Your task to perform on an android device: What's the weather today? Image 0: 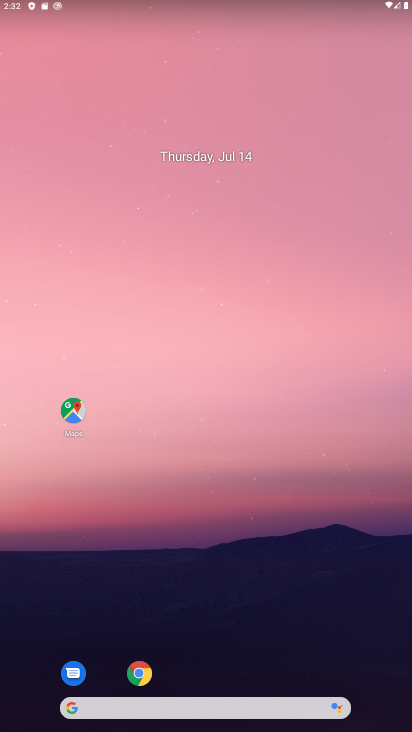
Step 0: drag from (205, 511) to (235, 76)
Your task to perform on an android device: What's the weather today? Image 1: 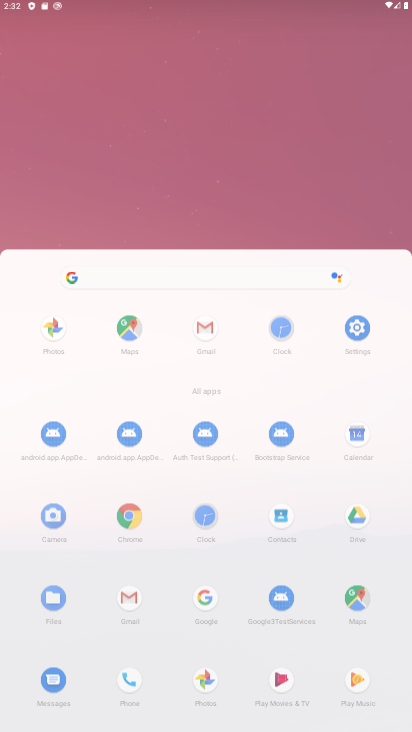
Step 1: drag from (176, 542) to (142, 93)
Your task to perform on an android device: What's the weather today? Image 2: 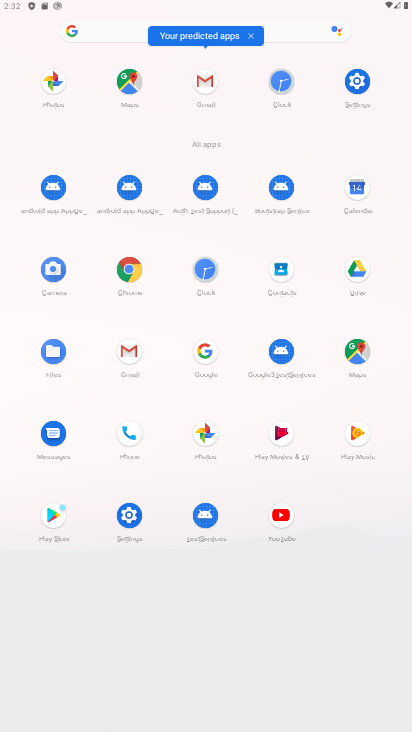
Step 2: click (143, 265)
Your task to perform on an android device: What's the weather today? Image 3: 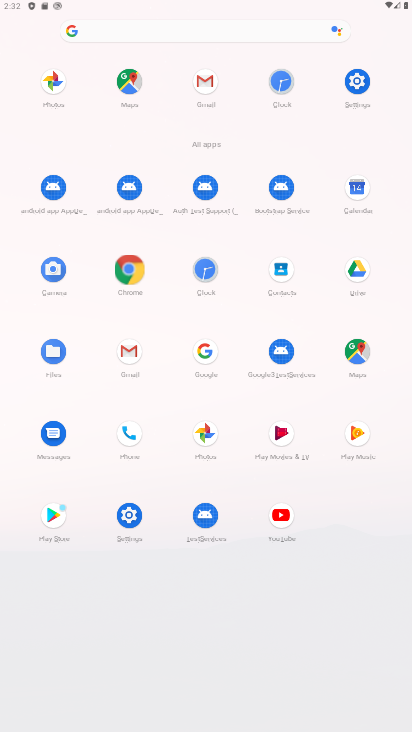
Step 3: click (126, 276)
Your task to perform on an android device: What's the weather today? Image 4: 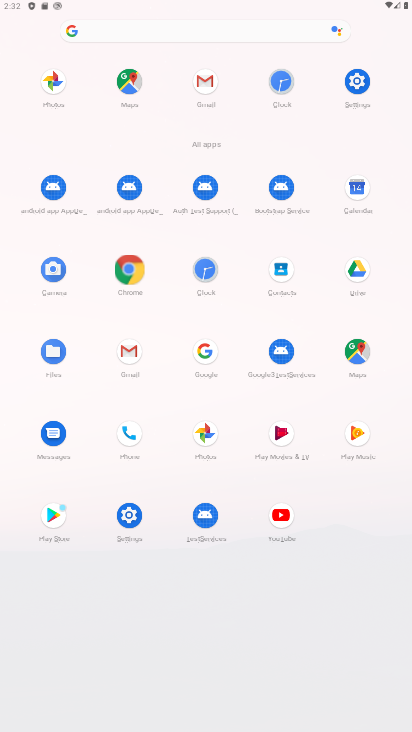
Step 4: click (126, 276)
Your task to perform on an android device: What's the weather today? Image 5: 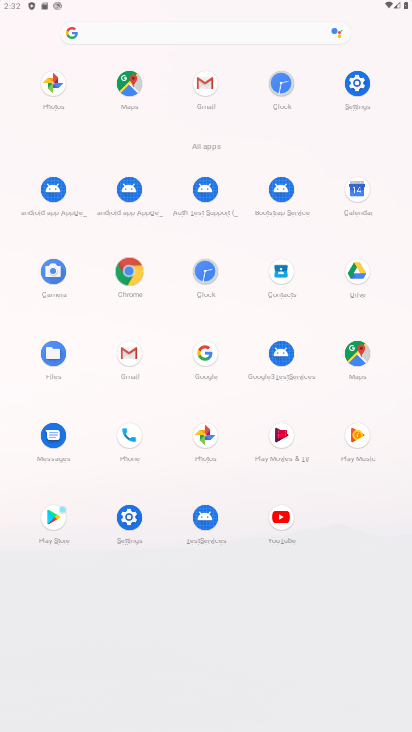
Step 5: click (131, 283)
Your task to perform on an android device: What's the weather today? Image 6: 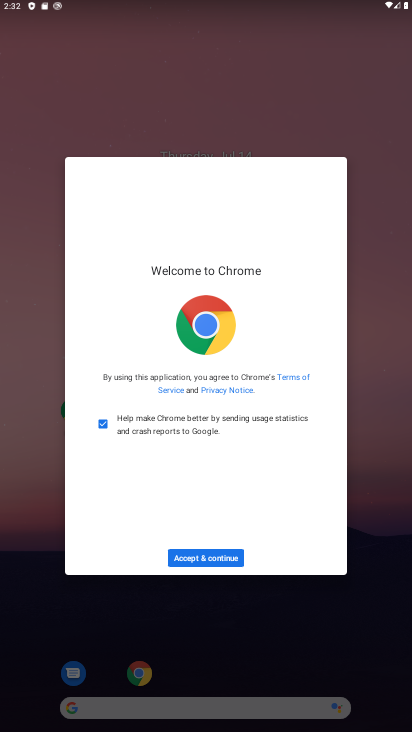
Step 6: click (219, 557)
Your task to perform on an android device: What's the weather today? Image 7: 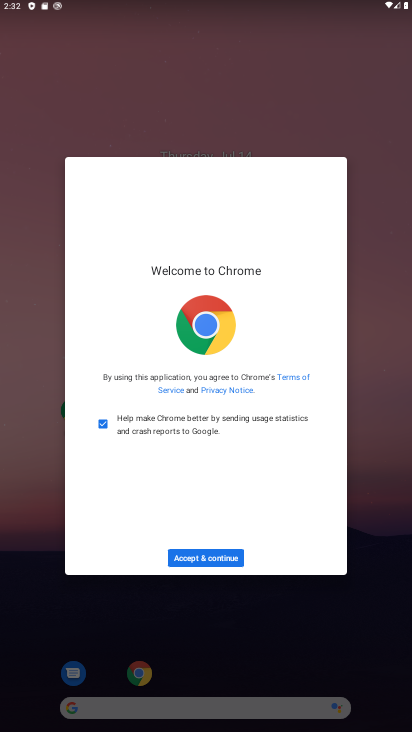
Step 7: click (219, 557)
Your task to perform on an android device: What's the weather today? Image 8: 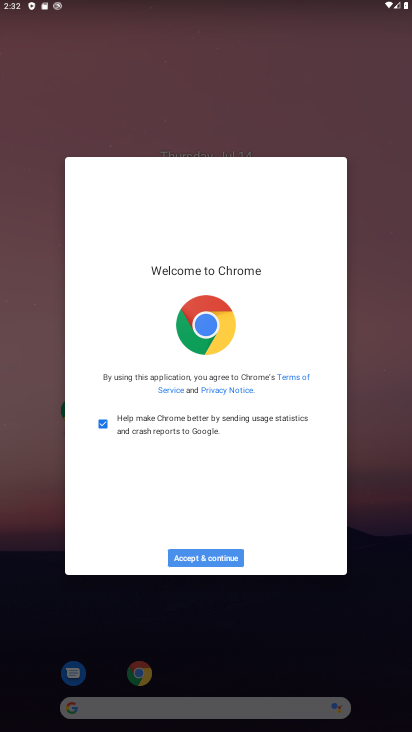
Step 8: click (219, 556)
Your task to perform on an android device: What's the weather today? Image 9: 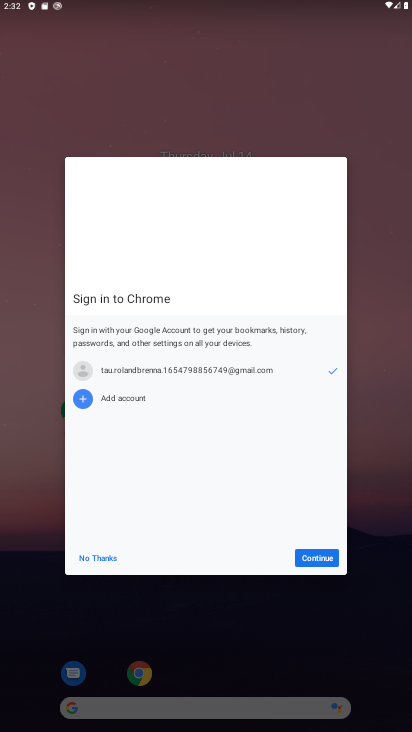
Step 9: click (219, 556)
Your task to perform on an android device: What's the weather today? Image 10: 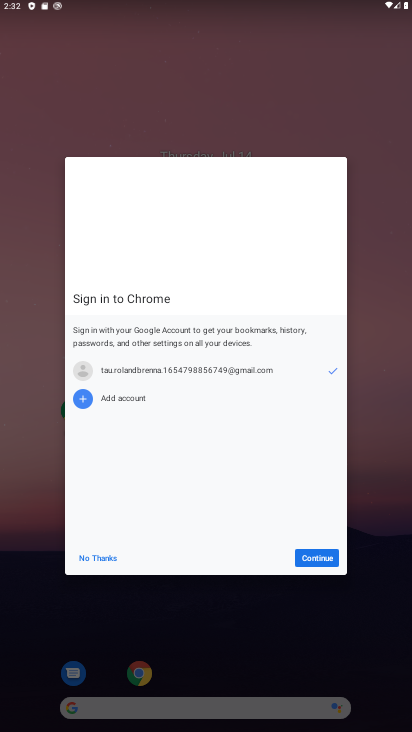
Step 10: click (326, 569)
Your task to perform on an android device: What's the weather today? Image 11: 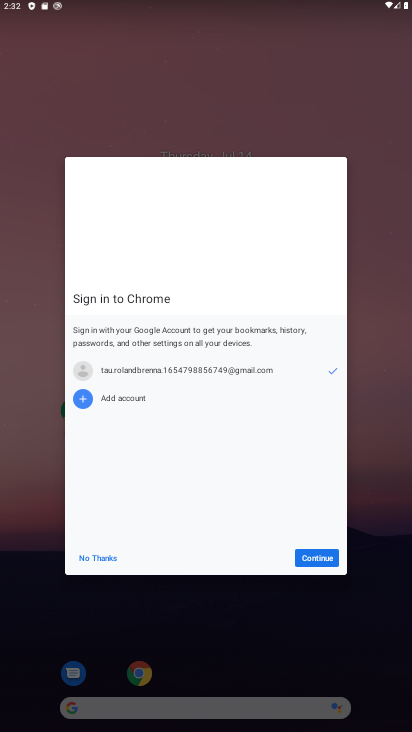
Step 11: click (327, 568)
Your task to perform on an android device: What's the weather today? Image 12: 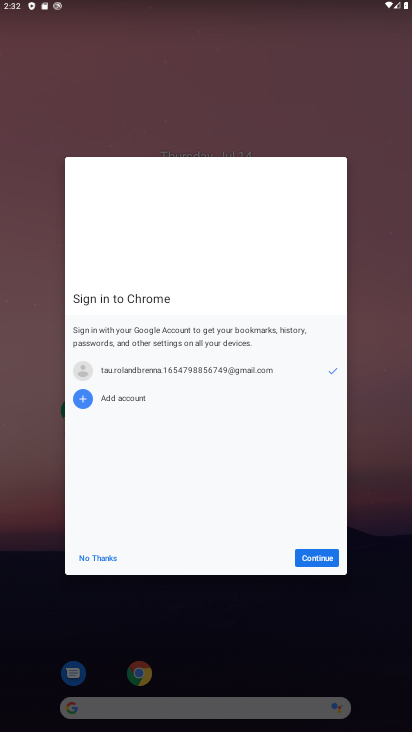
Step 12: click (324, 558)
Your task to perform on an android device: What's the weather today? Image 13: 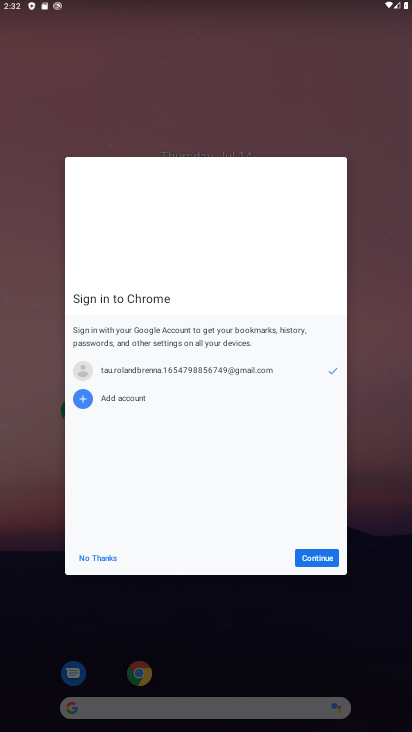
Step 13: click (324, 558)
Your task to perform on an android device: What's the weather today? Image 14: 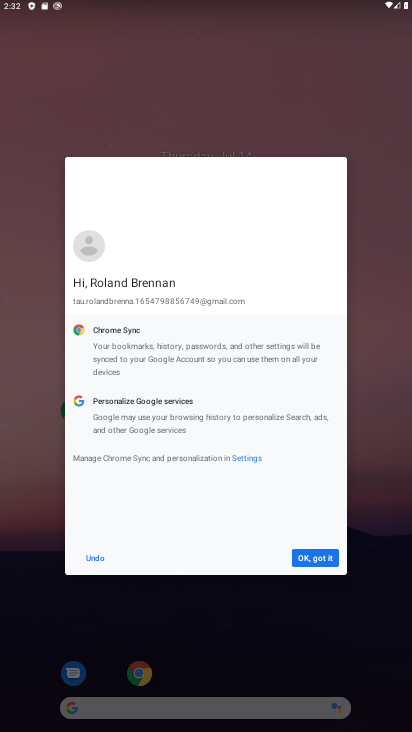
Step 14: click (324, 558)
Your task to perform on an android device: What's the weather today? Image 15: 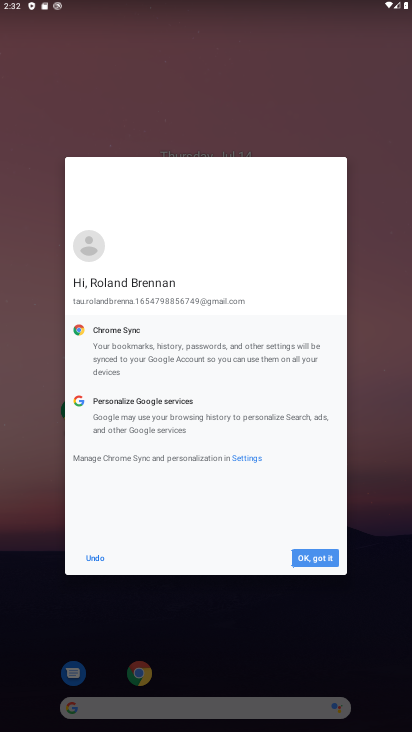
Step 15: click (325, 557)
Your task to perform on an android device: What's the weather today? Image 16: 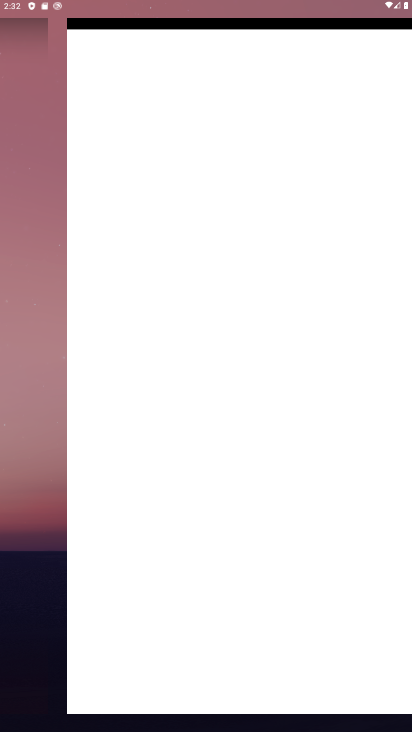
Step 16: click (338, 551)
Your task to perform on an android device: What's the weather today? Image 17: 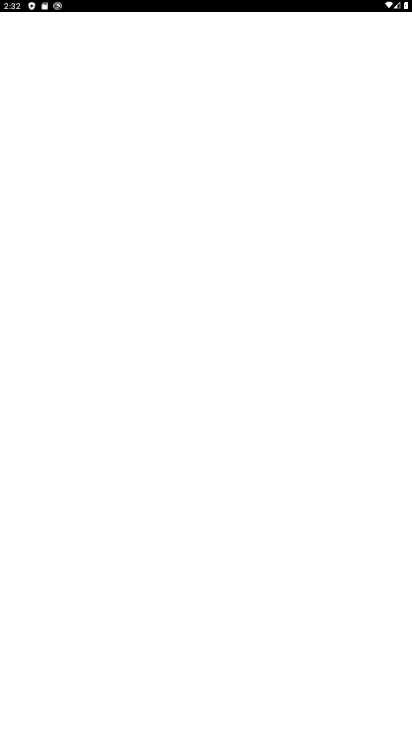
Step 17: click (328, 554)
Your task to perform on an android device: What's the weather today? Image 18: 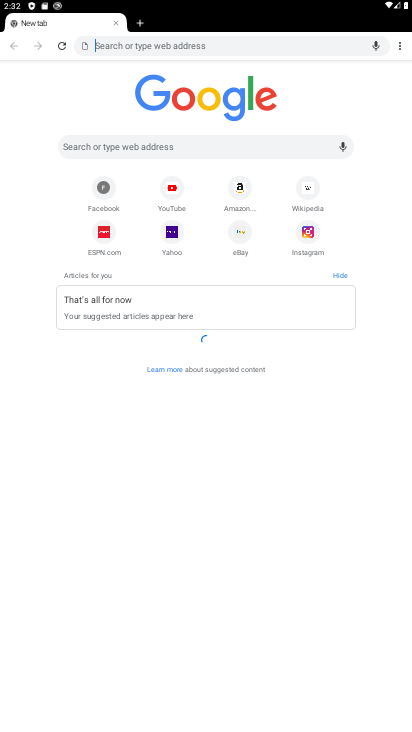
Step 18: click (100, 141)
Your task to perform on an android device: What's the weather today? Image 19: 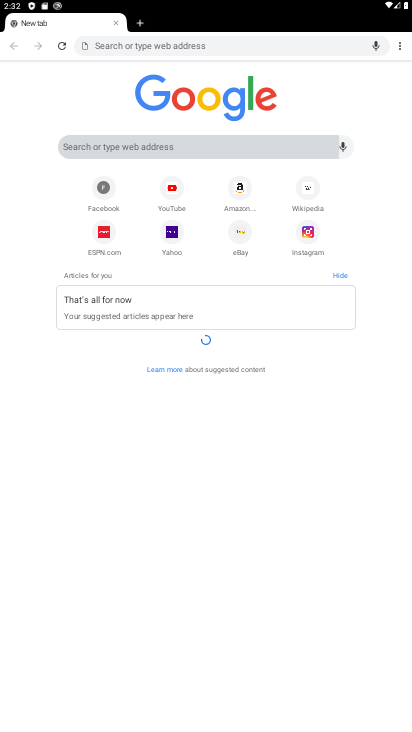
Step 19: click (100, 141)
Your task to perform on an android device: What's the weather today? Image 20: 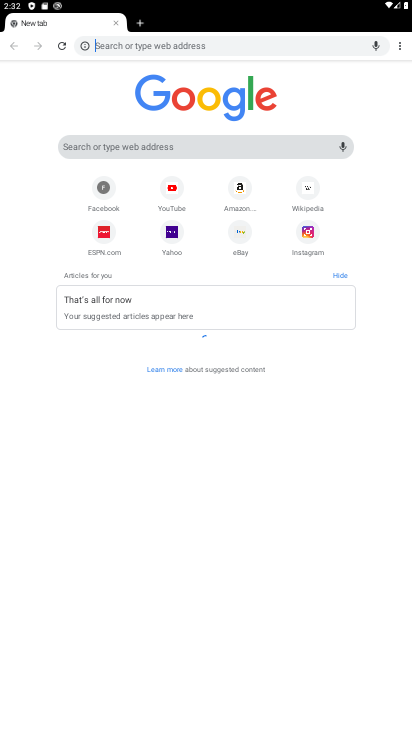
Step 20: click (99, 142)
Your task to perform on an android device: What's the weather today? Image 21: 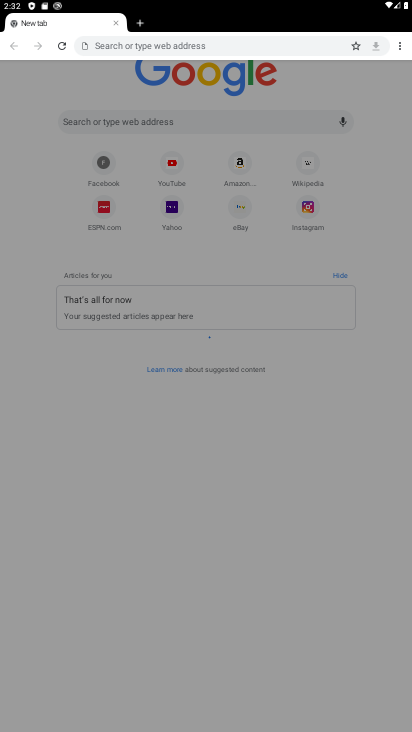
Step 21: click (100, 143)
Your task to perform on an android device: What's the weather today? Image 22: 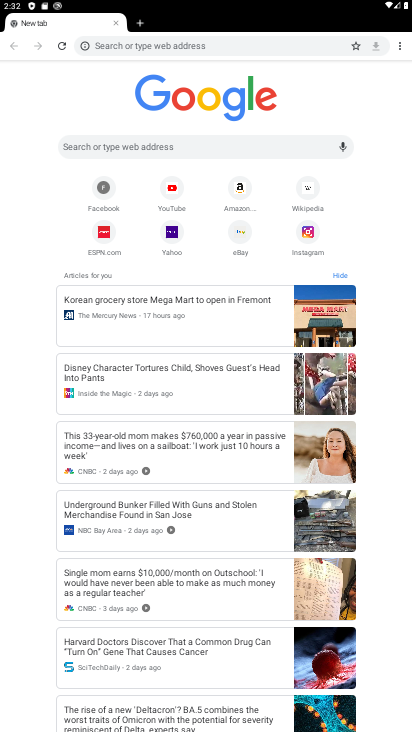
Step 22: click (82, 146)
Your task to perform on an android device: What's the weather today? Image 23: 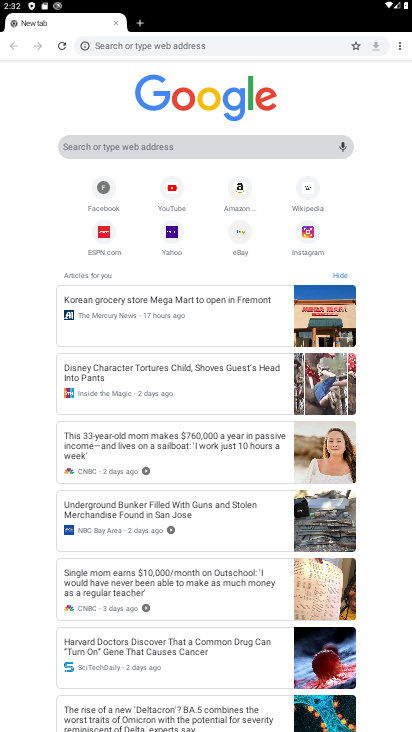
Step 23: click (83, 146)
Your task to perform on an android device: What's the weather today? Image 24: 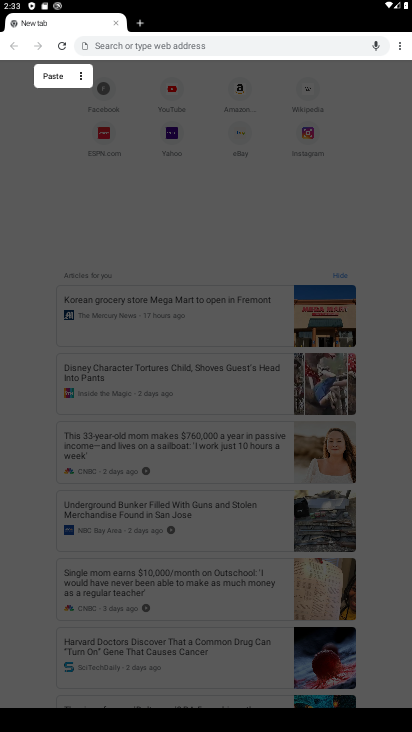
Step 24: type "weather today"
Your task to perform on an android device: What's the weather today? Image 25: 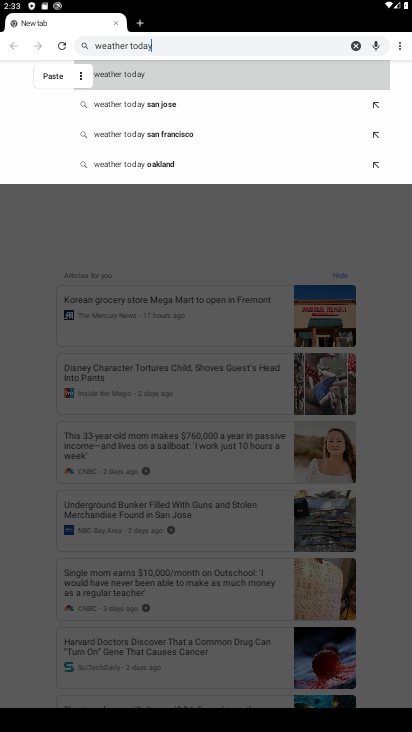
Step 25: click (124, 76)
Your task to perform on an android device: What's the weather today? Image 26: 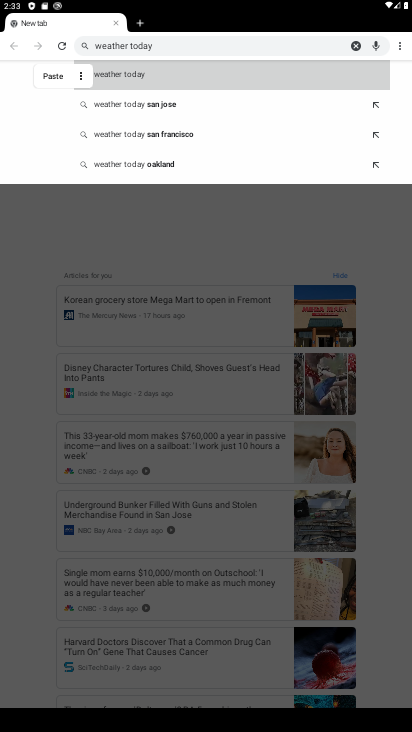
Step 26: click (124, 76)
Your task to perform on an android device: What's the weather today? Image 27: 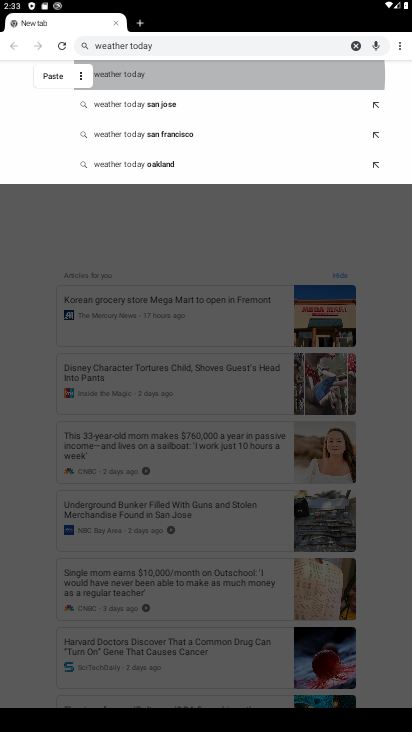
Step 27: click (124, 76)
Your task to perform on an android device: What's the weather today? Image 28: 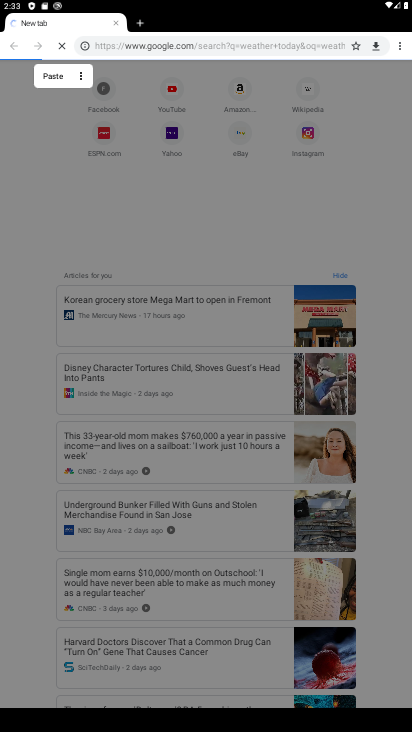
Step 28: click (124, 76)
Your task to perform on an android device: What's the weather today? Image 29: 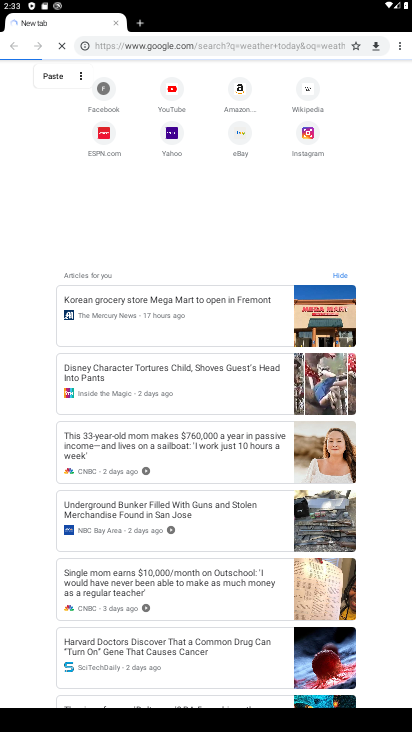
Step 29: click (124, 76)
Your task to perform on an android device: What's the weather today? Image 30: 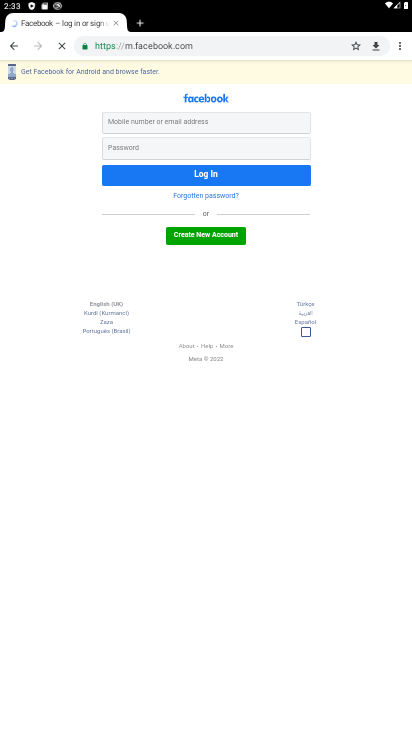
Step 30: task complete